Your task to perform on an android device: open app "McDonald's" (install if not already installed), go to login, and select forgot password Image 0: 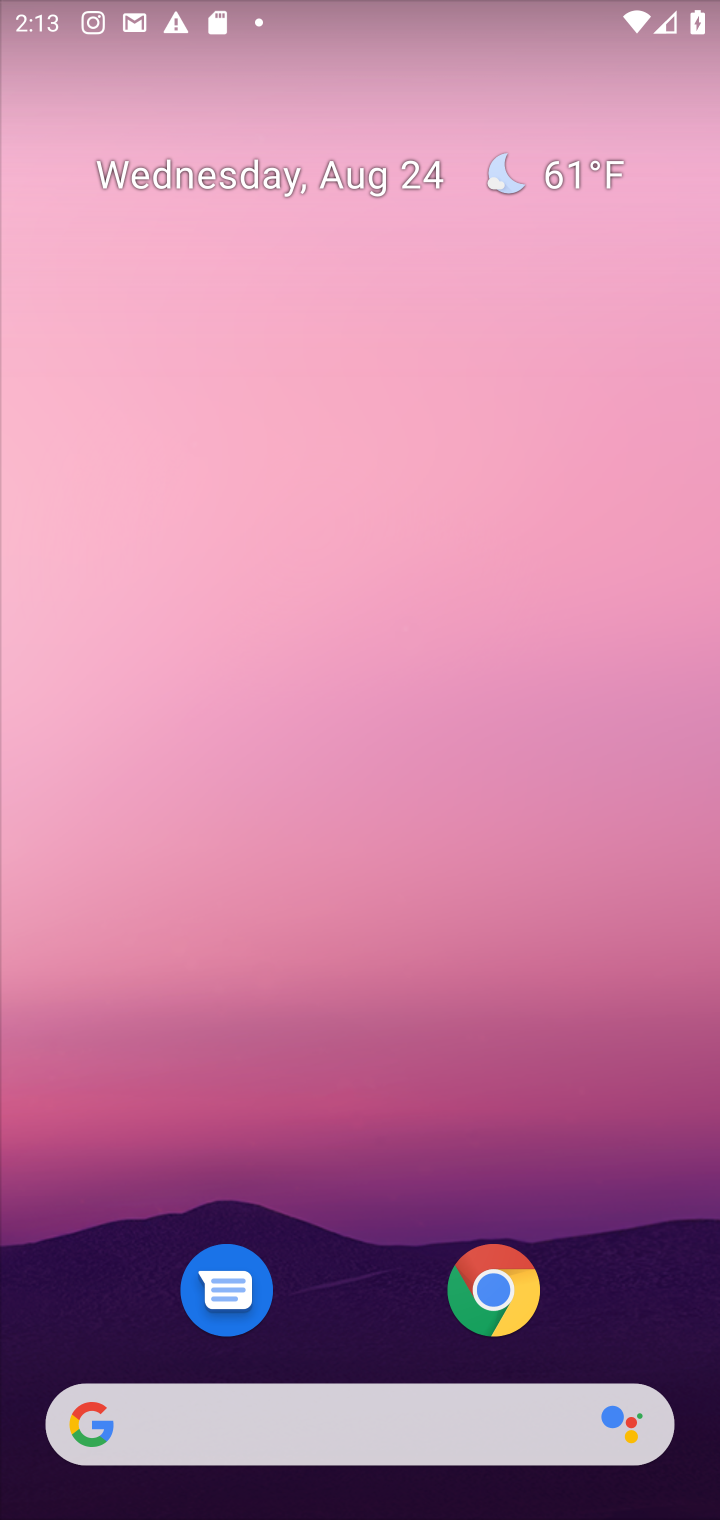
Step 0: click (371, 224)
Your task to perform on an android device: open app "McDonald's" (install if not already installed), go to login, and select forgot password Image 1: 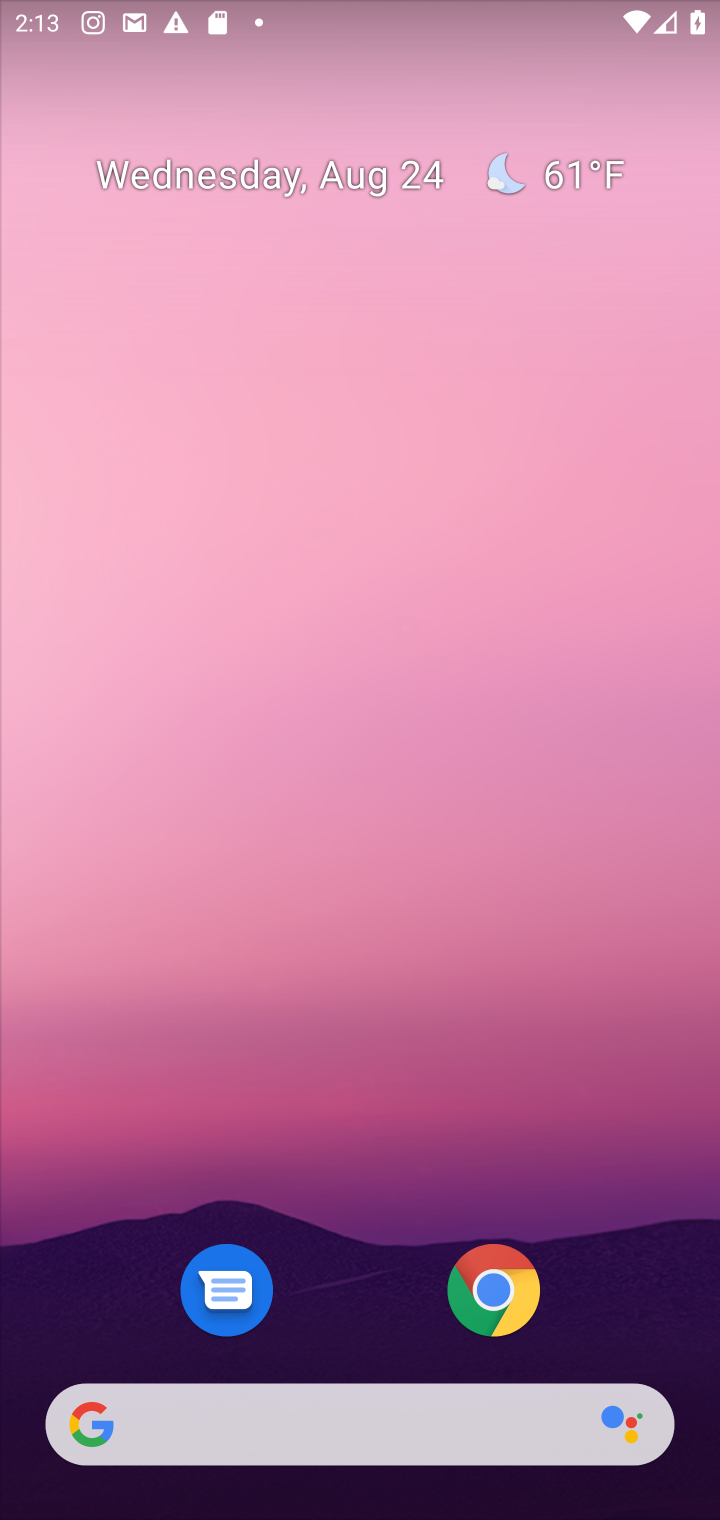
Step 1: drag from (337, 1319) to (337, 206)
Your task to perform on an android device: open app "McDonald's" (install if not already installed), go to login, and select forgot password Image 2: 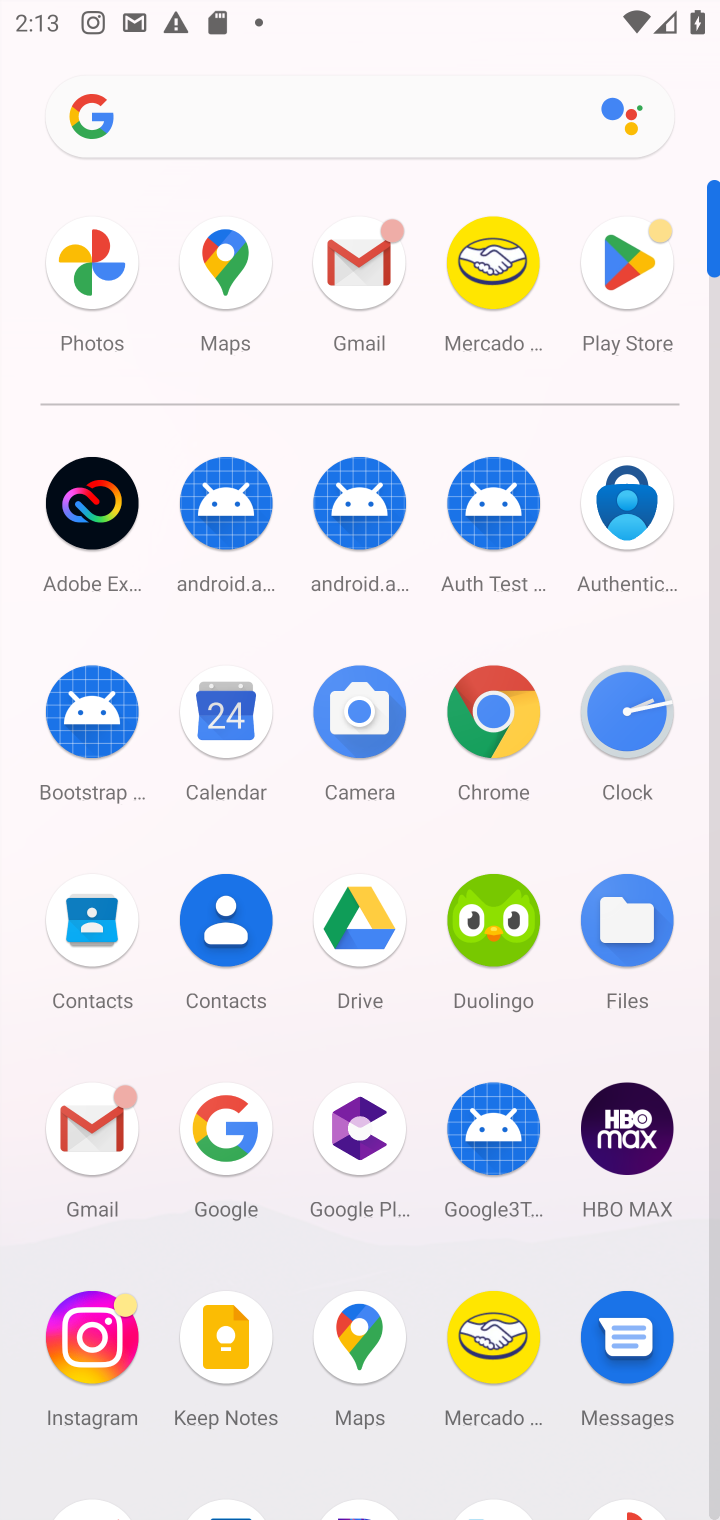
Step 2: click (630, 263)
Your task to perform on an android device: open app "McDonald's" (install if not already installed), go to login, and select forgot password Image 3: 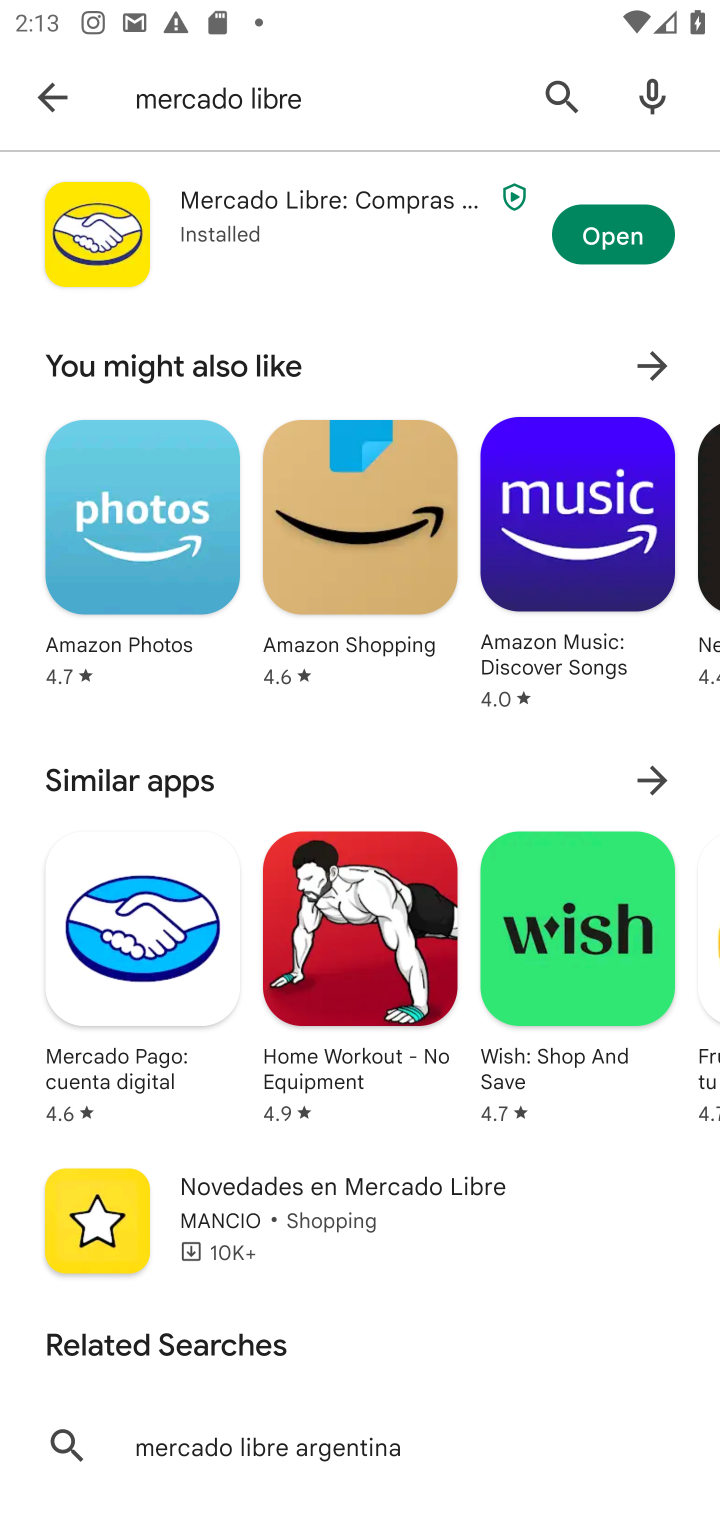
Step 3: click (37, 91)
Your task to perform on an android device: open app "McDonald's" (install if not already installed), go to login, and select forgot password Image 4: 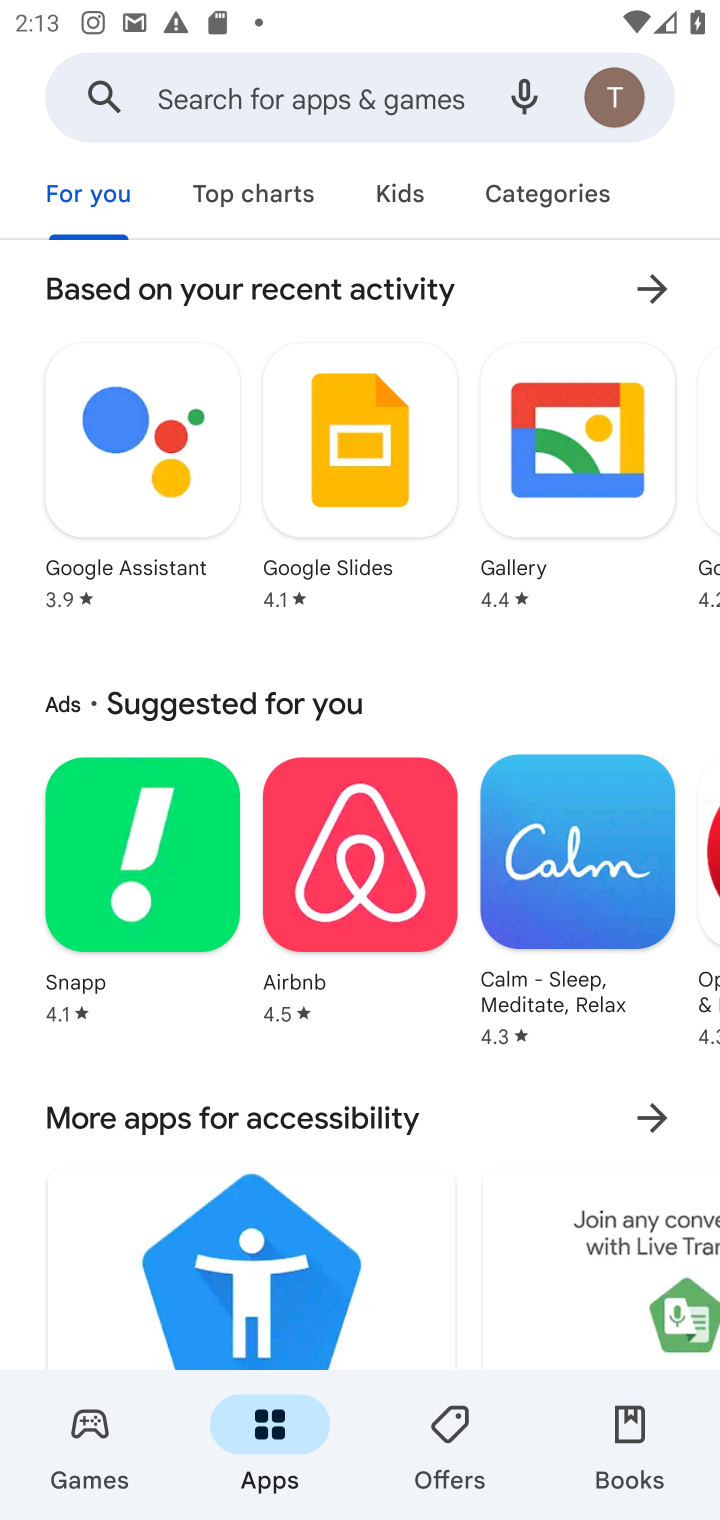
Step 4: click (298, 98)
Your task to perform on an android device: open app "McDonald's" (install if not already installed), go to login, and select forgot password Image 5: 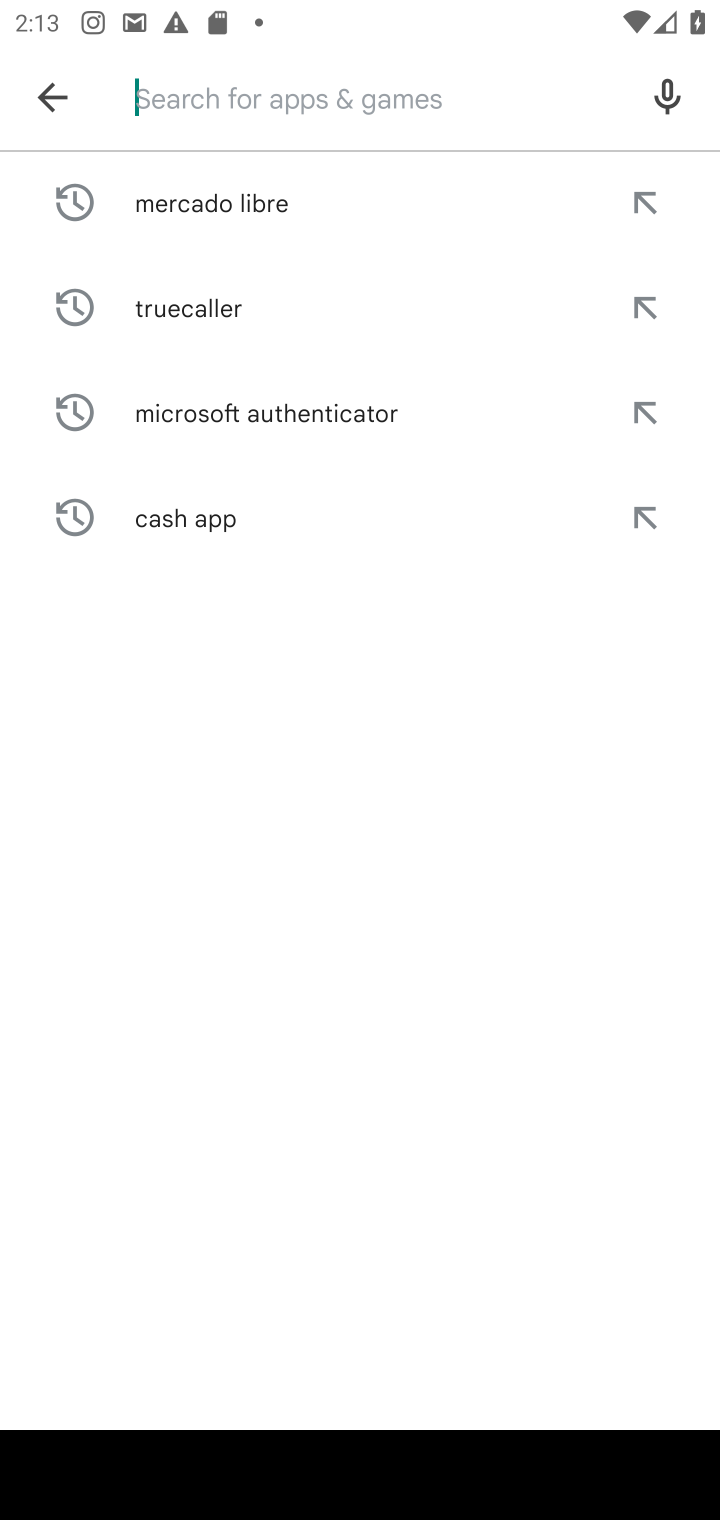
Step 5: type "McDonald's"
Your task to perform on an android device: open app "McDonald's" (install if not already installed), go to login, and select forgot password Image 6: 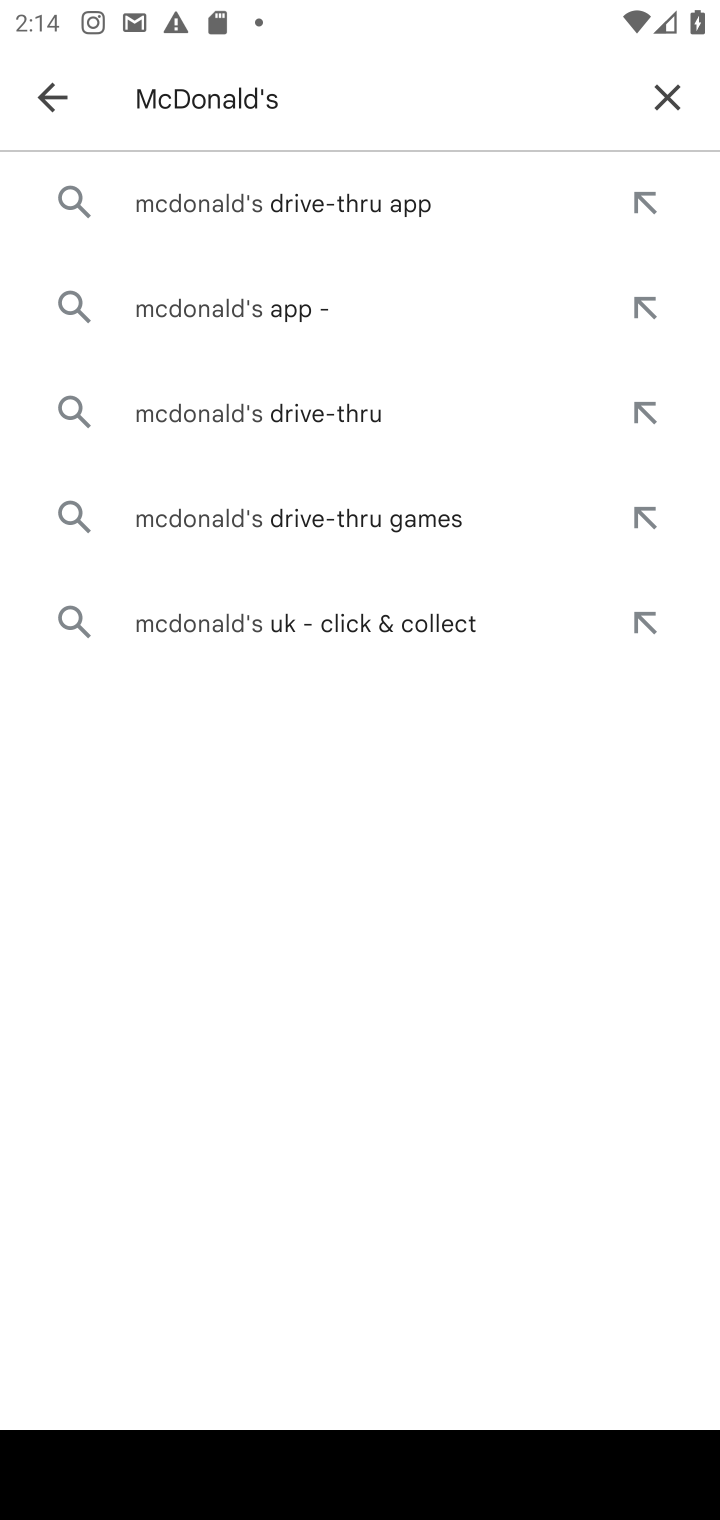
Step 6: click (257, 320)
Your task to perform on an android device: open app "McDonald's" (install if not already installed), go to login, and select forgot password Image 7: 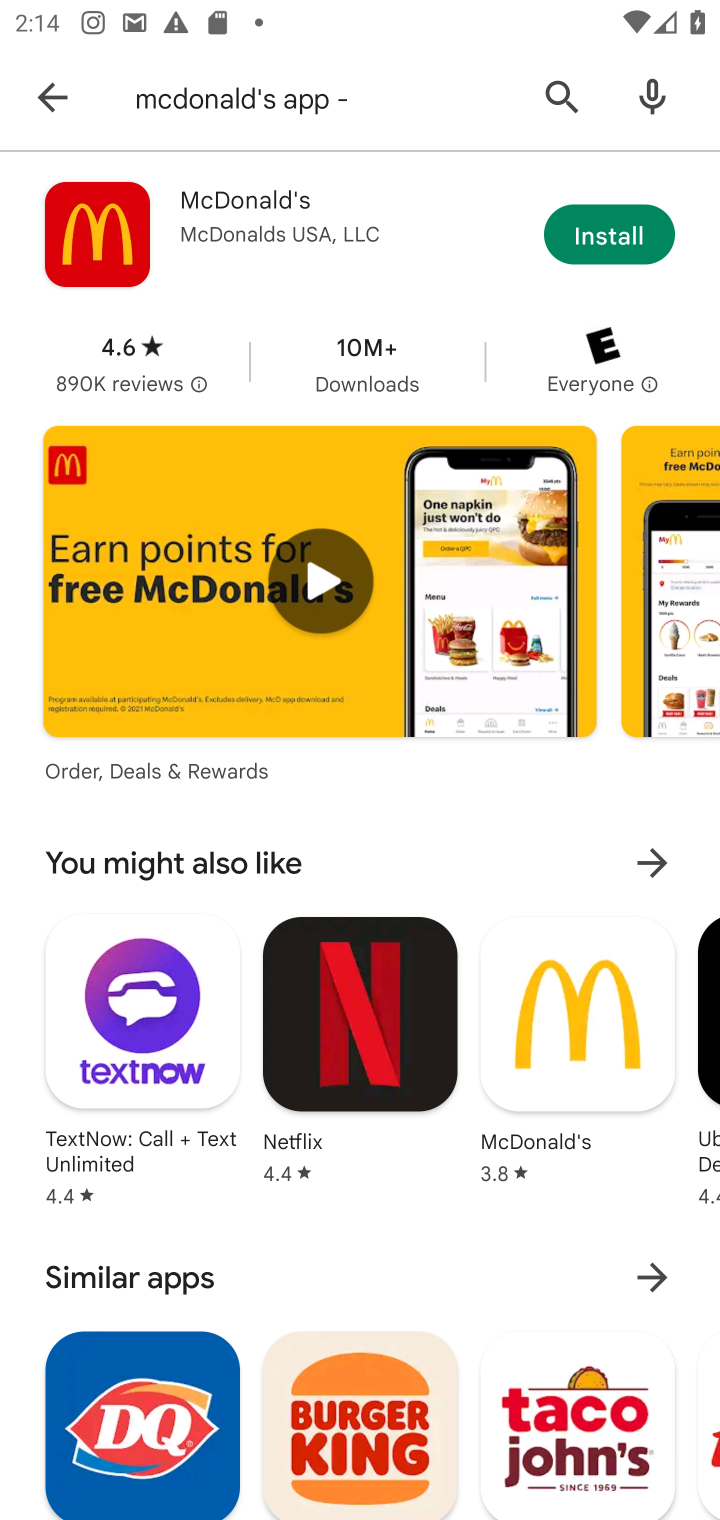
Step 7: click (601, 251)
Your task to perform on an android device: open app "McDonald's" (install if not already installed), go to login, and select forgot password Image 8: 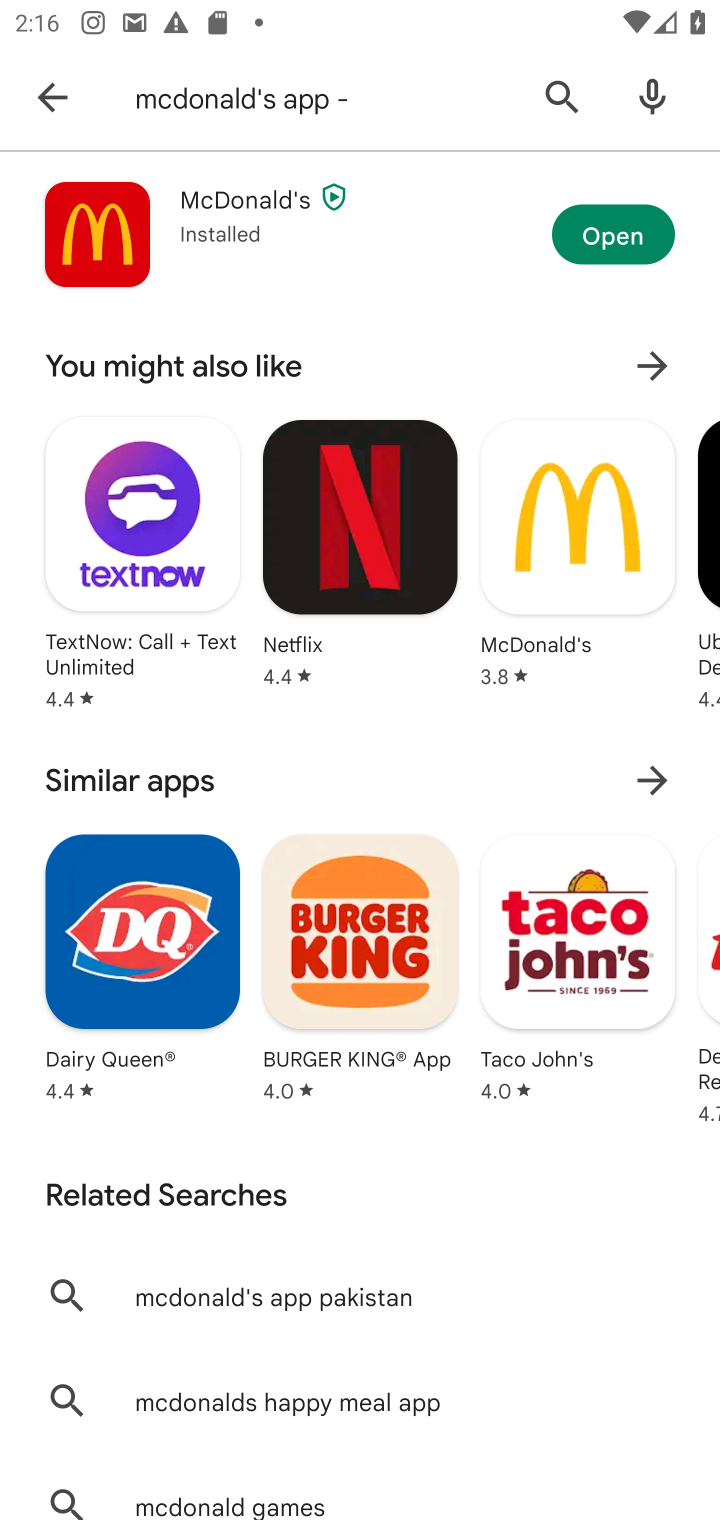
Step 8: click (601, 251)
Your task to perform on an android device: open app "McDonald's" (install if not already installed), go to login, and select forgot password Image 9: 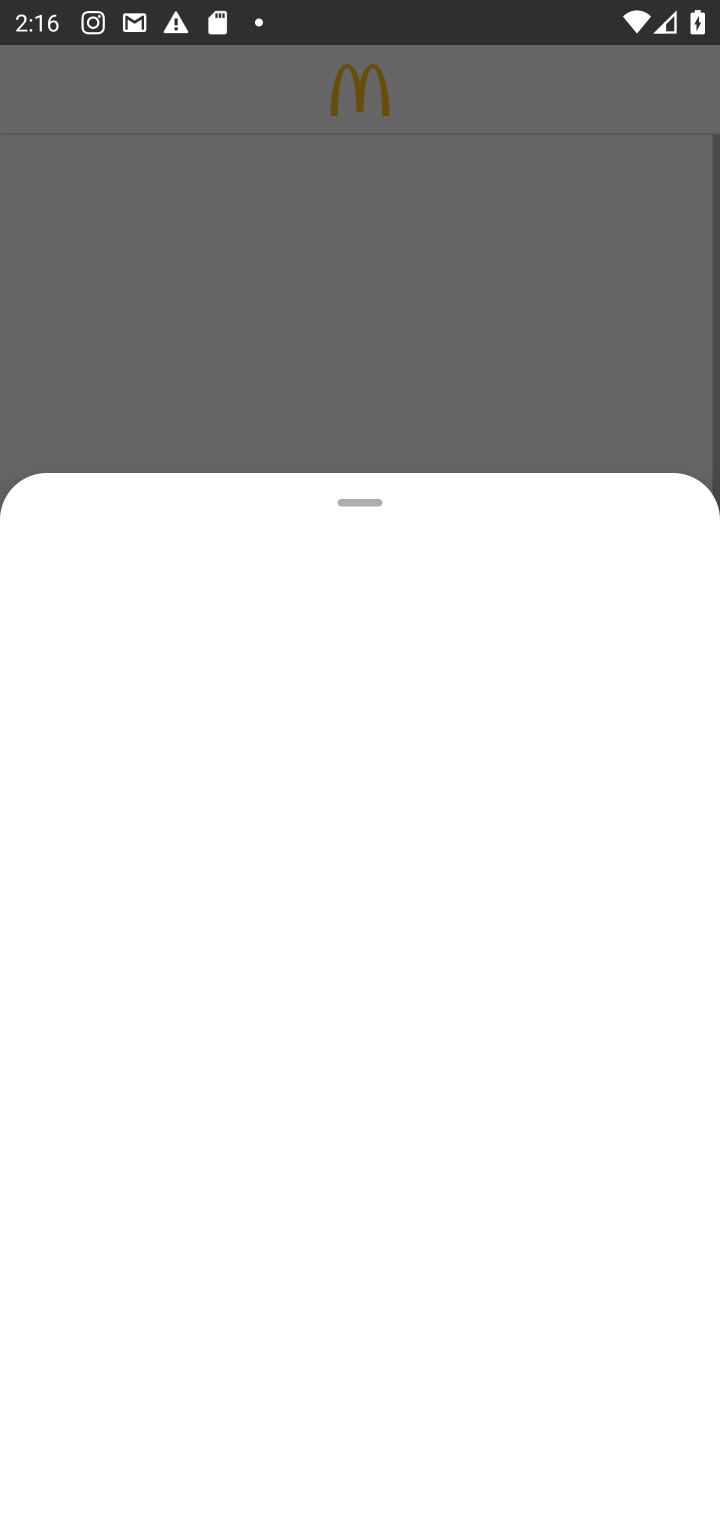
Step 9: task complete